Your task to perform on an android device: Open network settings Image 0: 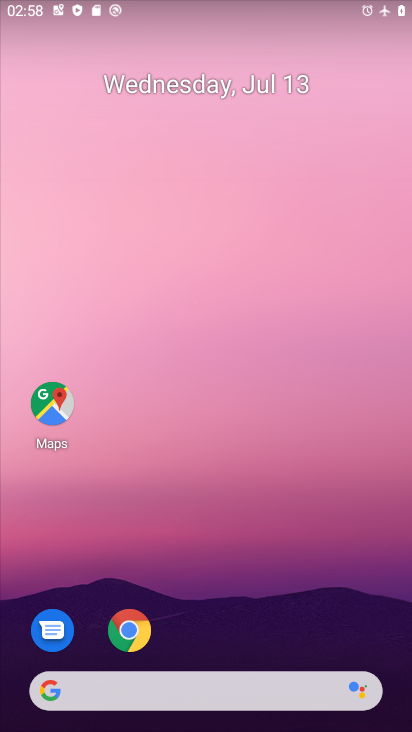
Step 0: drag from (214, 643) to (178, 220)
Your task to perform on an android device: Open network settings Image 1: 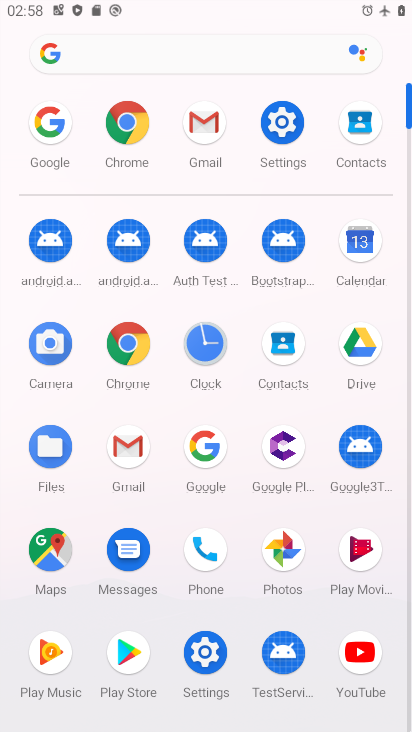
Step 1: click (283, 127)
Your task to perform on an android device: Open network settings Image 2: 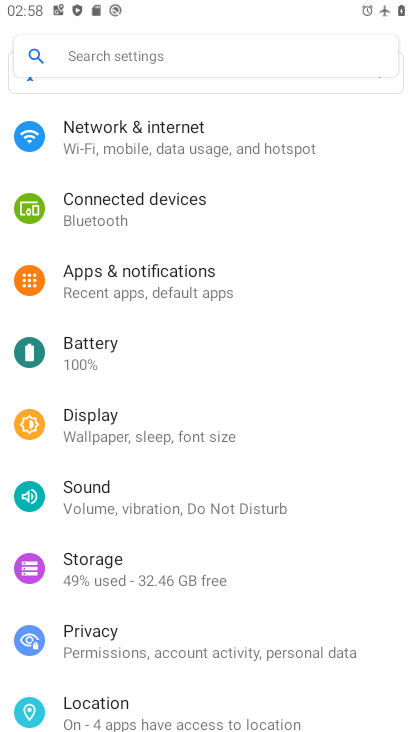
Step 2: click (234, 151)
Your task to perform on an android device: Open network settings Image 3: 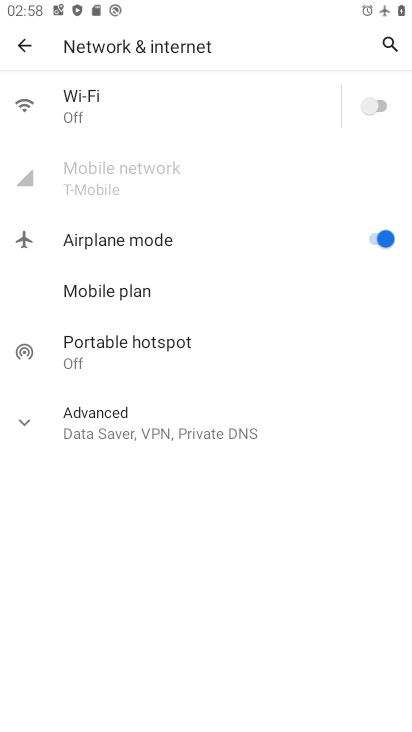
Step 3: task complete